Your task to perform on an android device: Open the phone app and click the voicemail tab. Image 0: 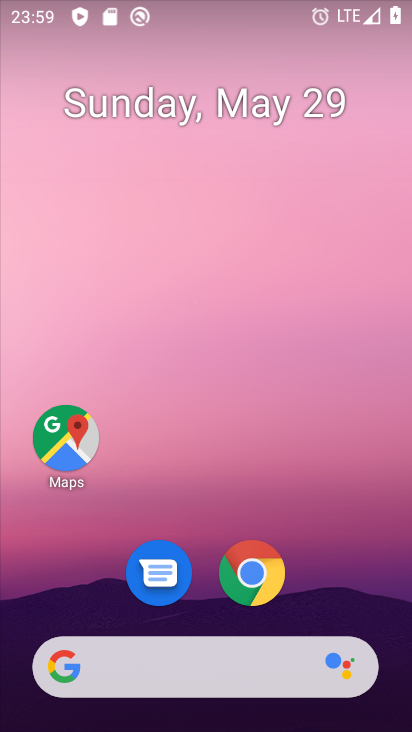
Step 0: drag from (278, 437) to (217, 5)
Your task to perform on an android device: Open the phone app and click the voicemail tab. Image 1: 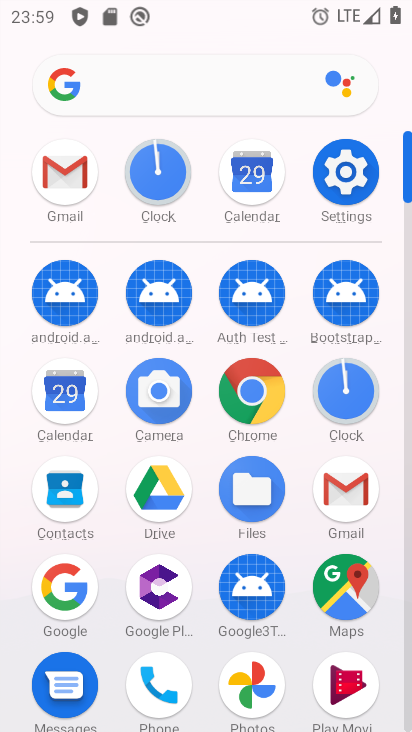
Step 1: click (168, 687)
Your task to perform on an android device: Open the phone app and click the voicemail tab. Image 2: 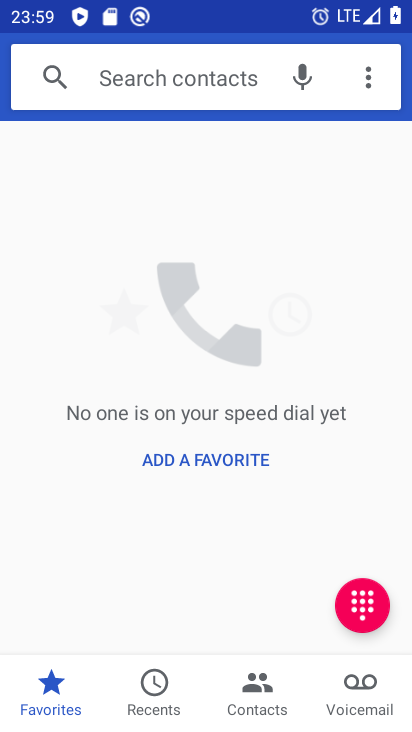
Step 2: click (370, 695)
Your task to perform on an android device: Open the phone app and click the voicemail tab. Image 3: 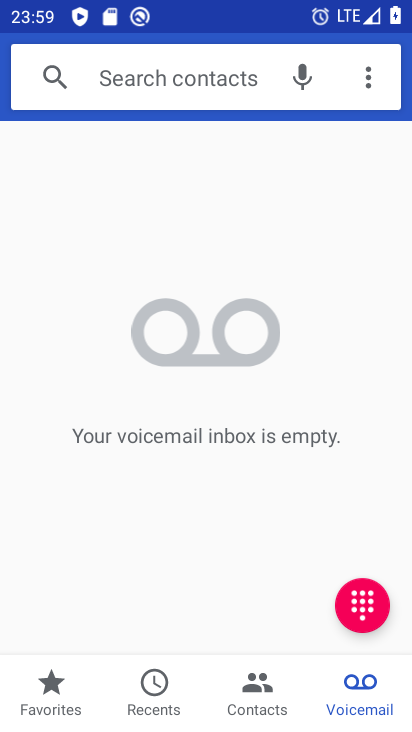
Step 3: task complete